Your task to perform on an android device: change text size in settings app Image 0: 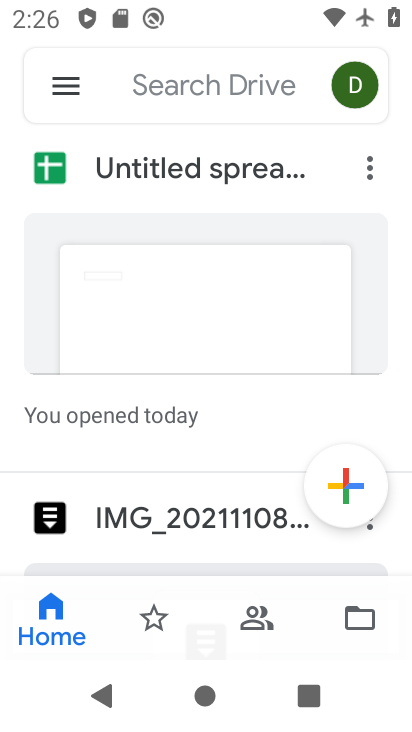
Step 0: press home button
Your task to perform on an android device: change text size in settings app Image 1: 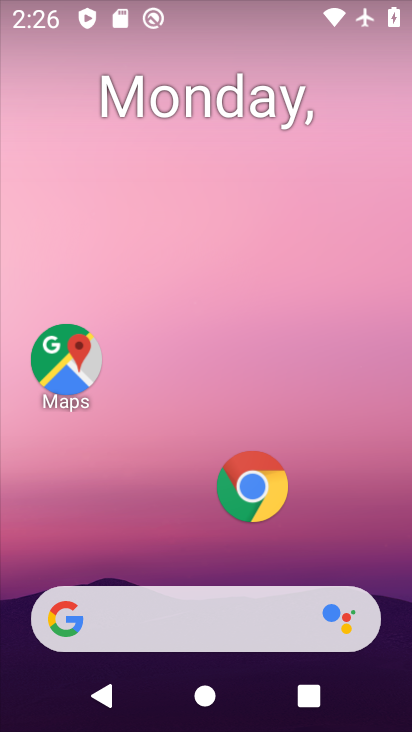
Step 1: drag from (138, 504) to (163, 108)
Your task to perform on an android device: change text size in settings app Image 2: 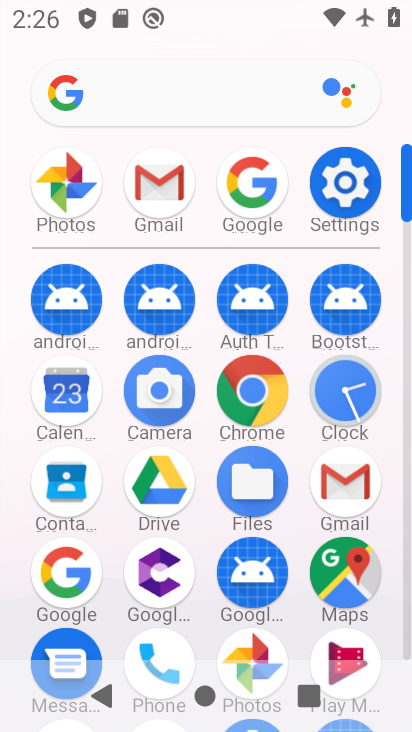
Step 2: click (330, 182)
Your task to perform on an android device: change text size in settings app Image 3: 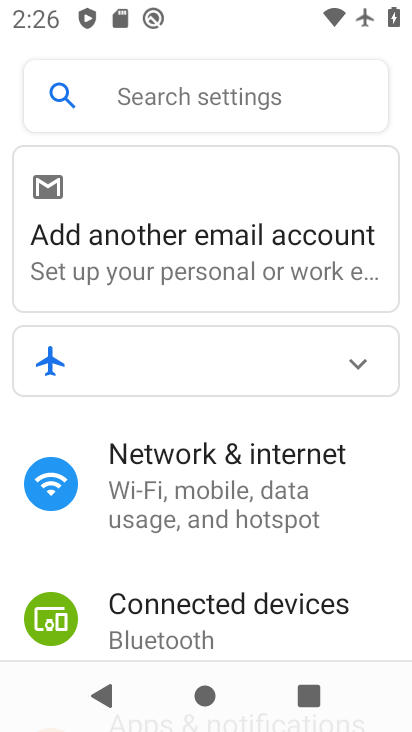
Step 3: drag from (183, 546) to (169, 244)
Your task to perform on an android device: change text size in settings app Image 4: 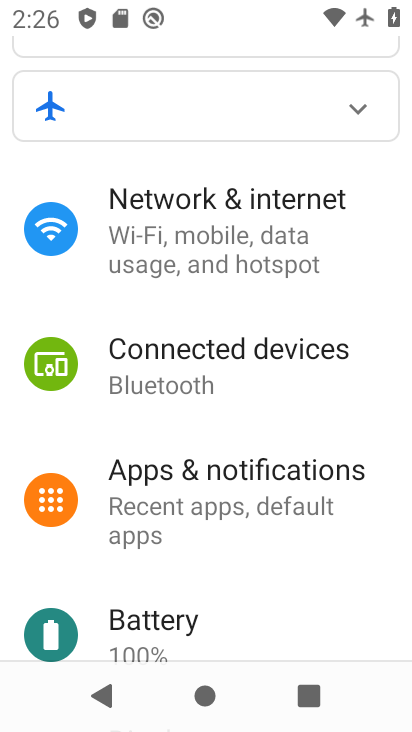
Step 4: drag from (225, 542) to (234, 284)
Your task to perform on an android device: change text size in settings app Image 5: 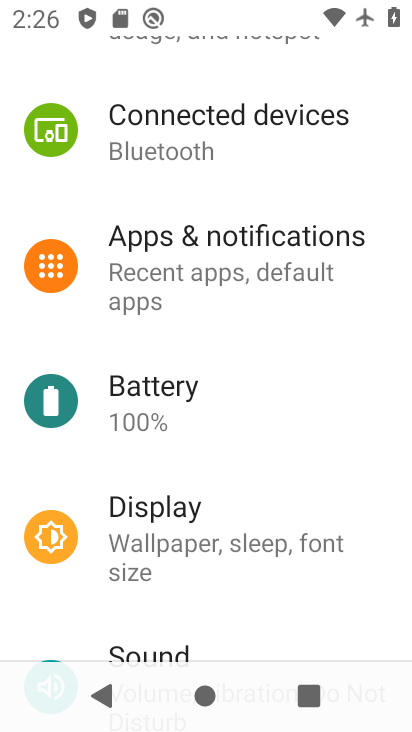
Step 5: drag from (230, 552) to (219, 372)
Your task to perform on an android device: change text size in settings app Image 6: 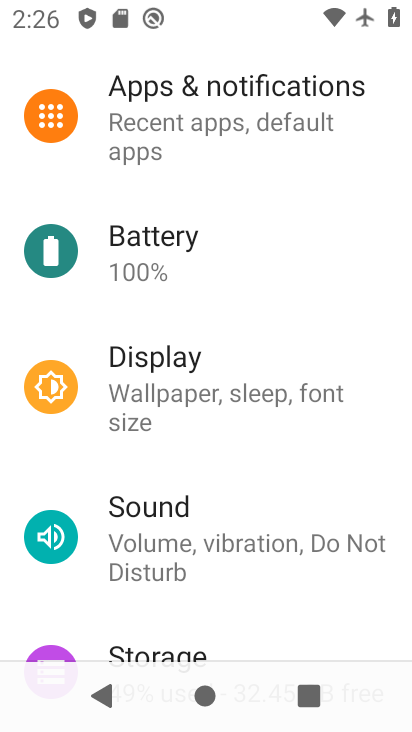
Step 6: drag from (235, 580) to (224, 466)
Your task to perform on an android device: change text size in settings app Image 7: 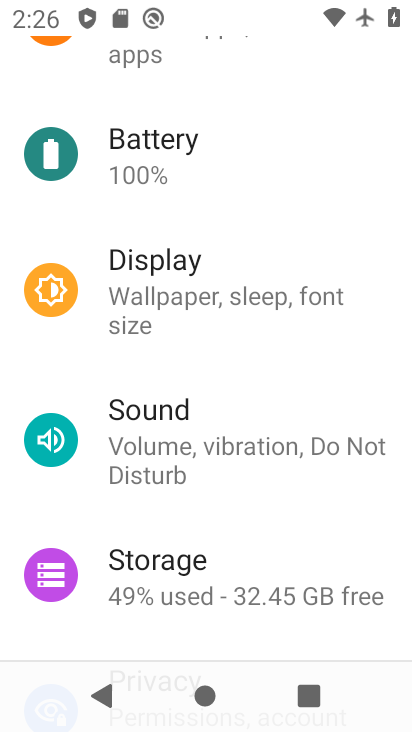
Step 7: click (199, 305)
Your task to perform on an android device: change text size in settings app Image 8: 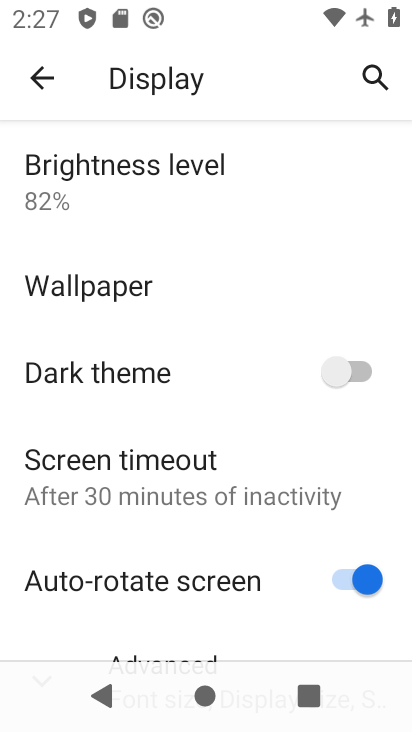
Step 8: drag from (166, 612) to (203, 265)
Your task to perform on an android device: change text size in settings app Image 9: 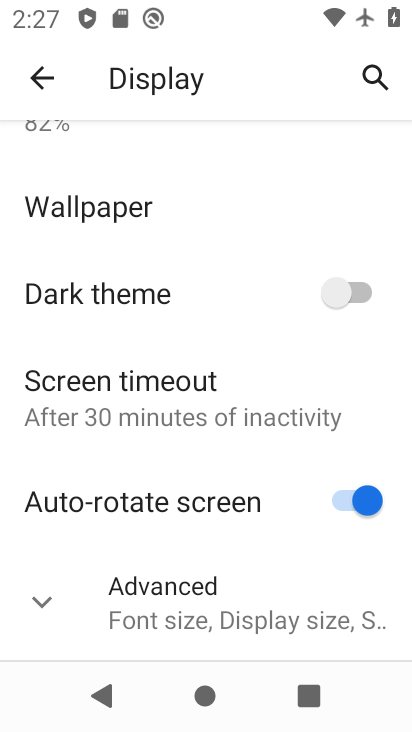
Step 9: click (173, 628)
Your task to perform on an android device: change text size in settings app Image 10: 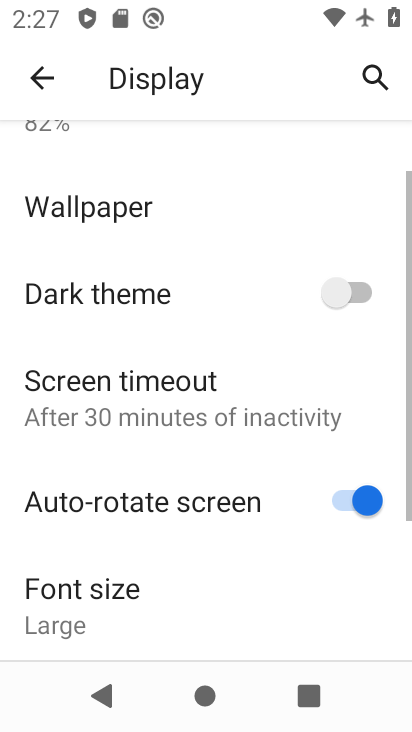
Step 10: drag from (177, 605) to (185, 321)
Your task to perform on an android device: change text size in settings app Image 11: 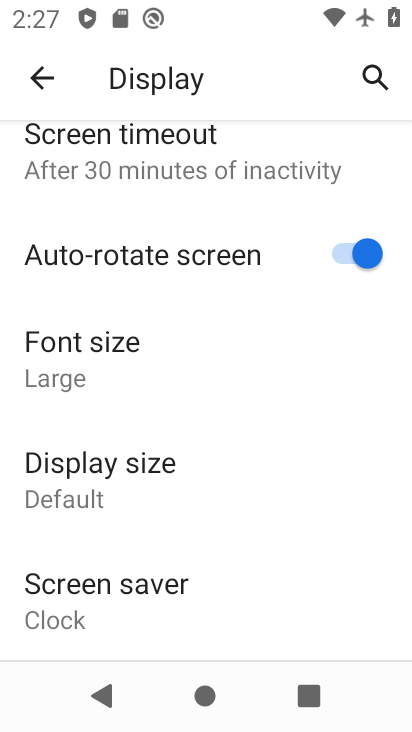
Step 11: click (138, 379)
Your task to perform on an android device: change text size in settings app Image 12: 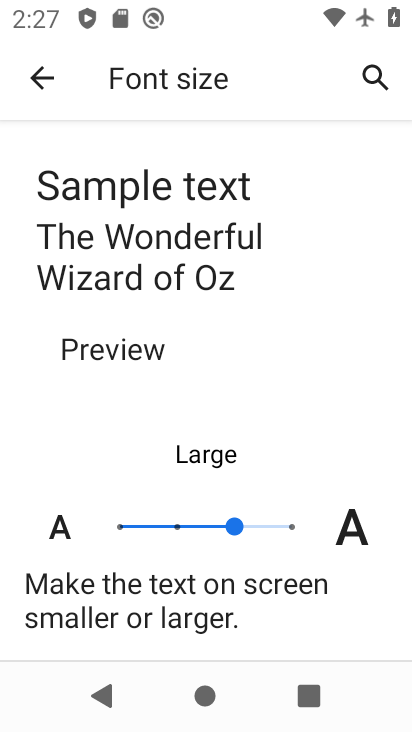
Step 12: click (180, 524)
Your task to perform on an android device: change text size in settings app Image 13: 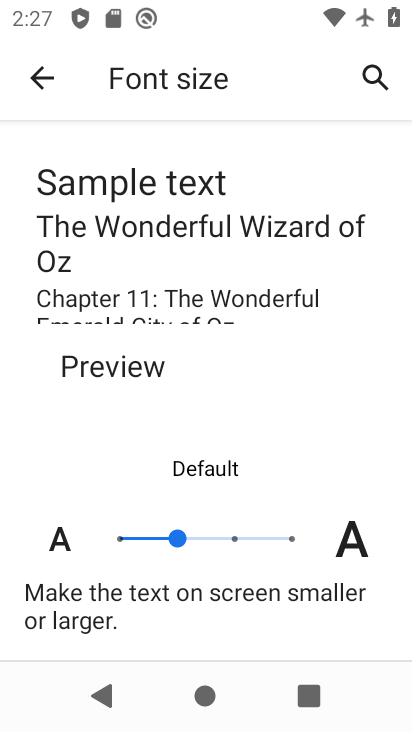
Step 13: task complete